Your task to perform on an android device: find which apps use the phone's location Image 0: 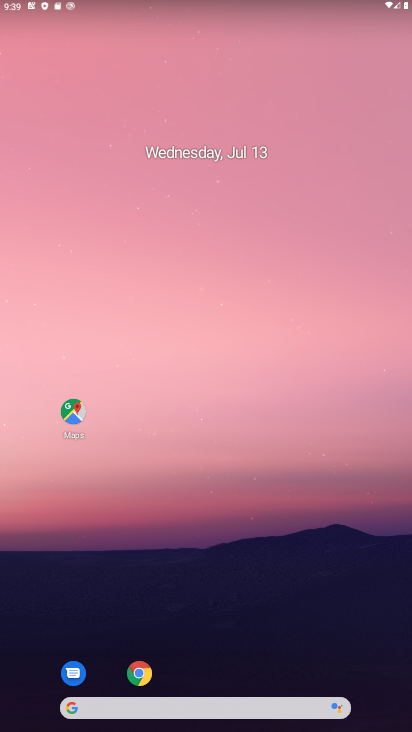
Step 0: drag from (208, 677) to (192, 63)
Your task to perform on an android device: find which apps use the phone's location Image 1: 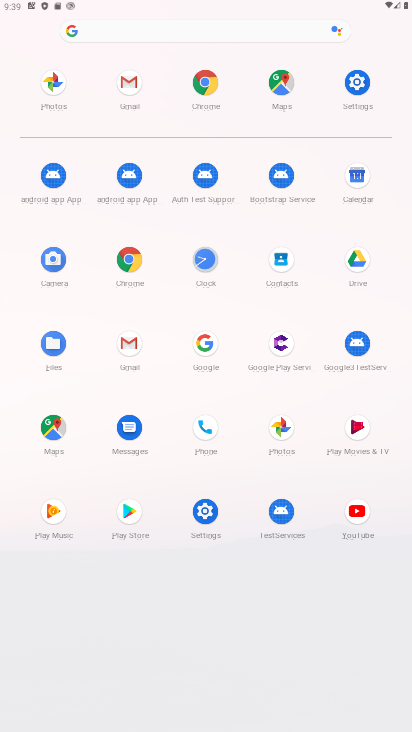
Step 1: click (364, 69)
Your task to perform on an android device: find which apps use the phone's location Image 2: 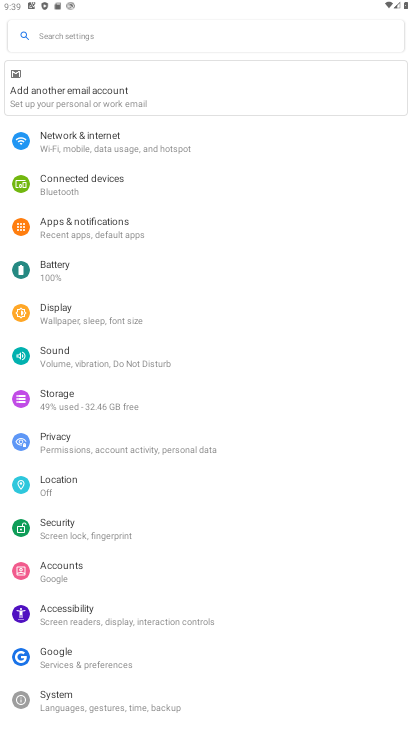
Step 2: click (63, 484)
Your task to perform on an android device: find which apps use the phone's location Image 3: 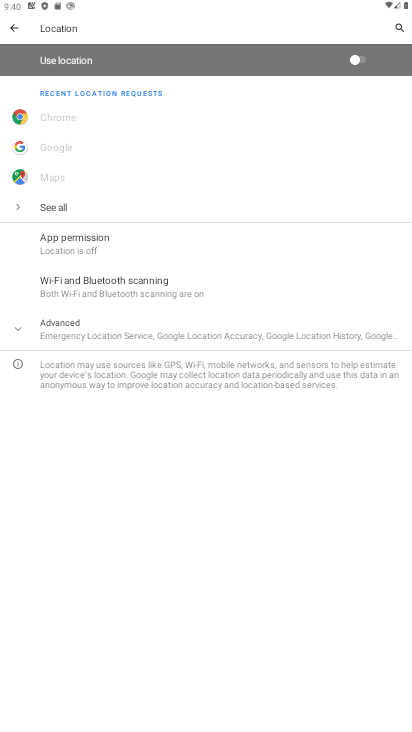
Step 3: task complete